Your task to perform on an android device: remove spam from my inbox in the gmail app Image 0: 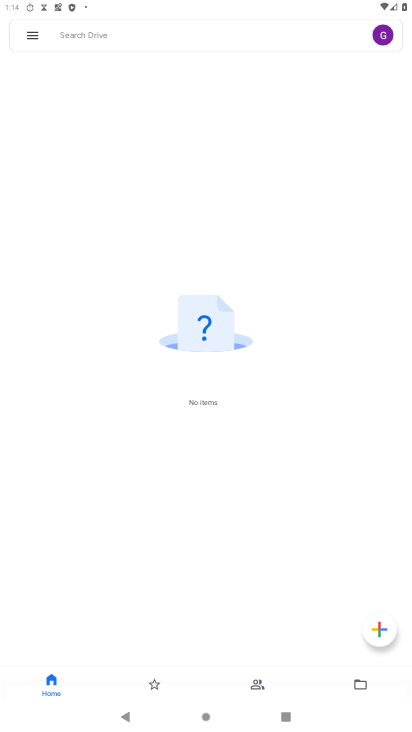
Step 0: press home button
Your task to perform on an android device: remove spam from my inbox in the gmail app Image 1: 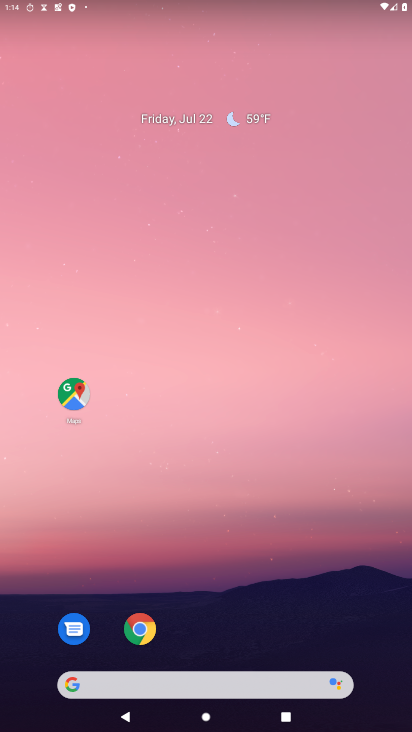
Step 1: drag from (227, 688) to (186, 127)
Your task to perform on an android device: remove spam from my inbox in the gmail app Image 2: 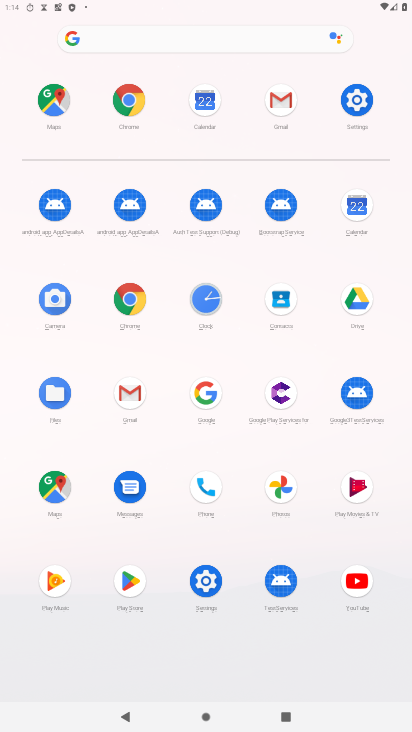
Step 2: click (135, 395)
Your task to perform on an android device: remove spam from my inbox in the gmail app Image 3: 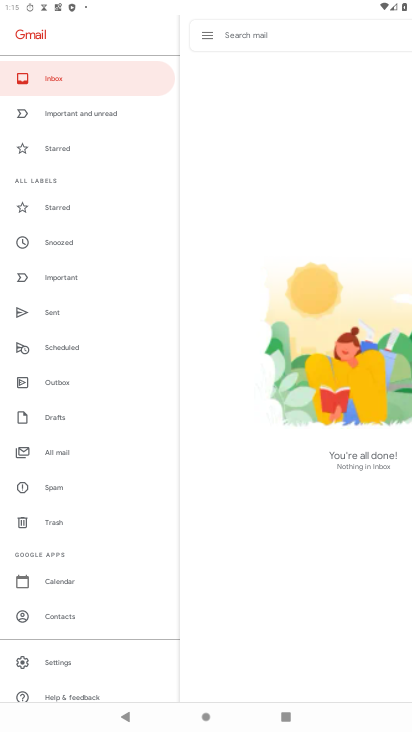
Step 3: click (63, 482)
Your task to perform on an android device: remove spam from my inbox in the gmail app Image 4: 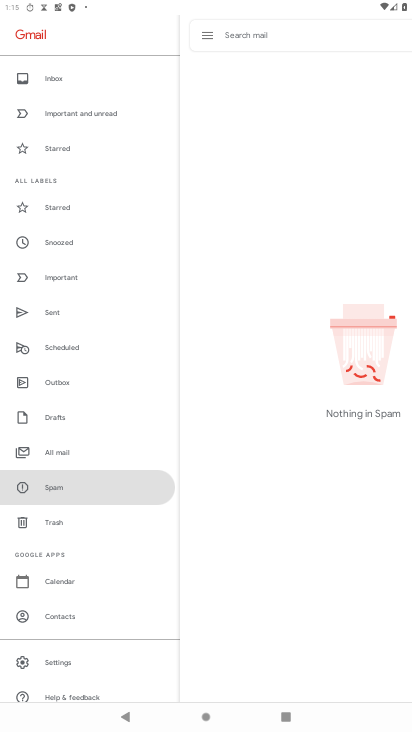
Step 4: task complete